Your task to perform on an android device: turn on data saver in the chrome app Image 0: 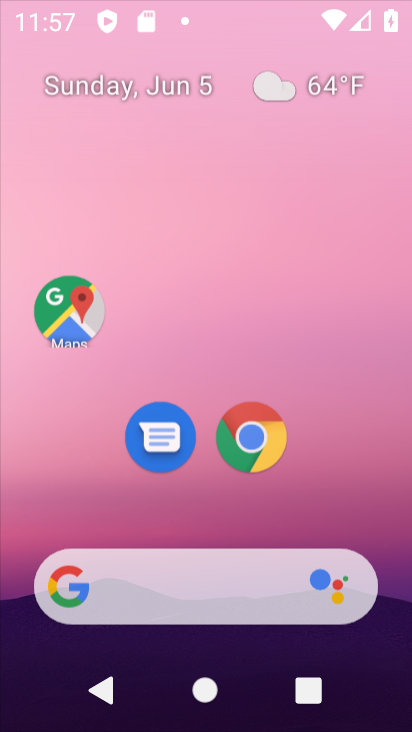
Step 0: drag from (297, 623) to (258, 382)
Your task to perform on an android device: turn on data saver in the chrome app Image 1: 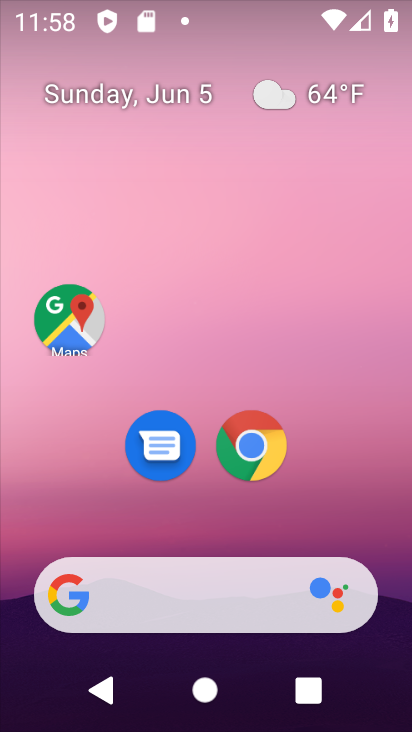
Step 1: drag from (284, 555) to (304, 7)
Your task to perform on an android device: turn on data saver in the chrome app Image 2: 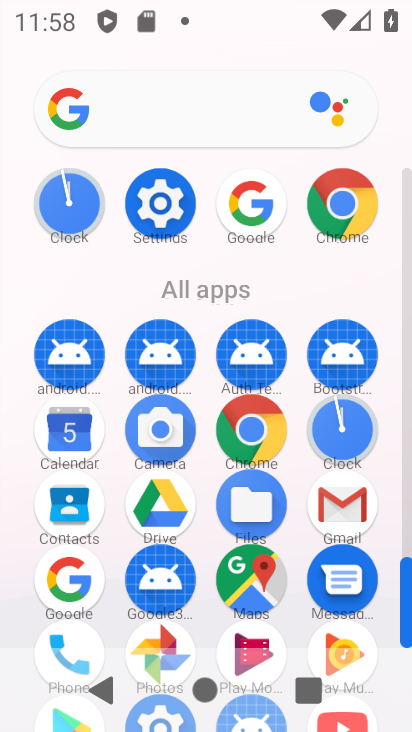
Step 2: click (279, 438)
Your task to perform on an android device: turn on data saver in the chrome app Image 3: 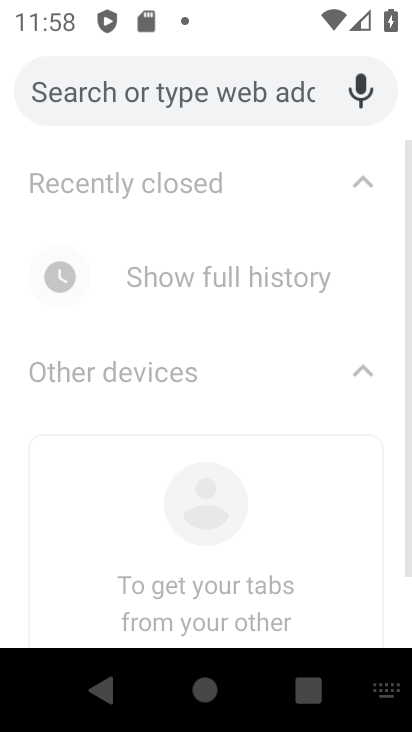
Step 3: press back button
Your task to perform on an android device: turn on data saver in the chrome app Image 4: 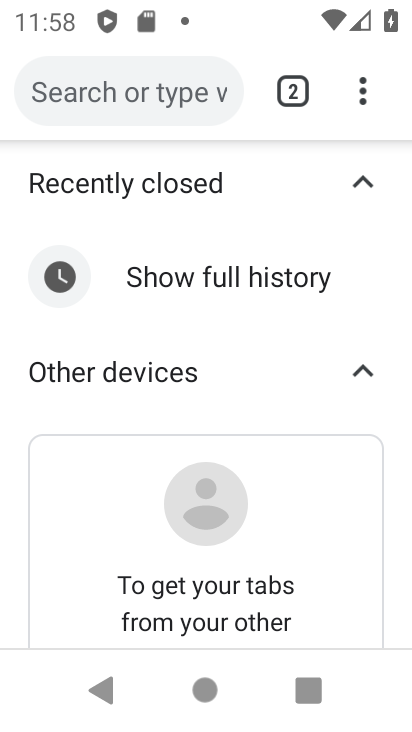
Step 4: click (360, 90)
Your task to perform on an android device: turn on data saver in the chrome app Image 5: 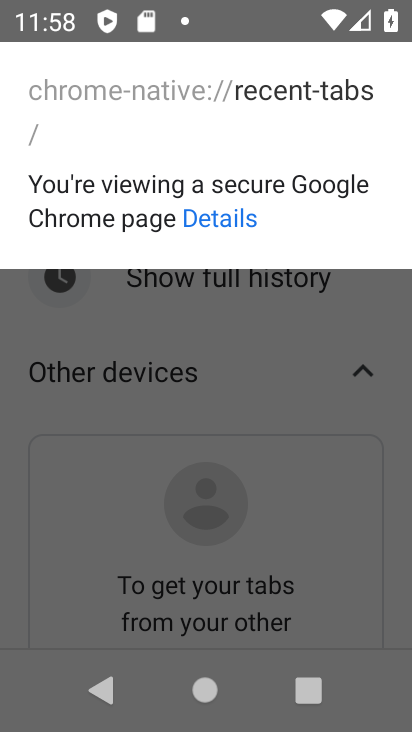
Step 5: click (282, 353)
Your task to perform on an android device: turn on data saver in the chrome app Image 6: 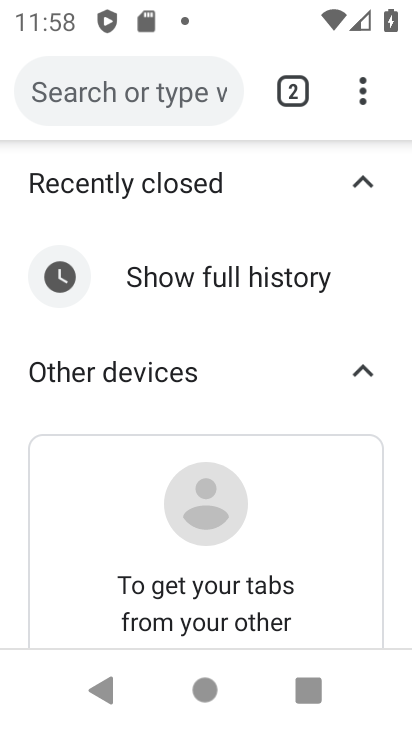
Step 6: drag from (361, 87) to (146, 488)
Your task to perform on an android device: turn on data saver in the chrome app Image 7: 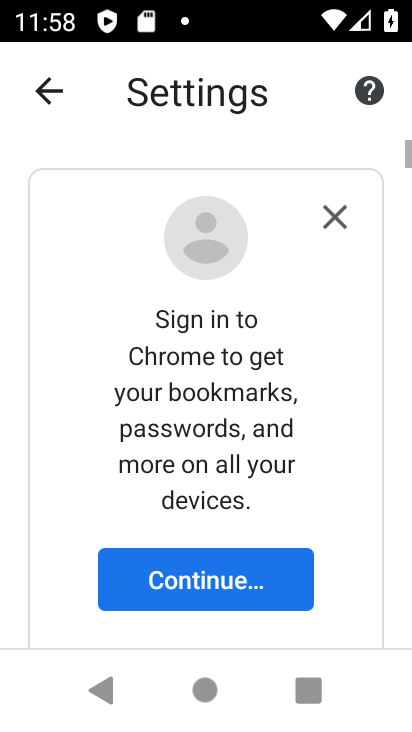
Step 7: drag from (204, 574) to (319, 7)
Your task to perform on an android device: turn on data saver in the chrome app Image 8: 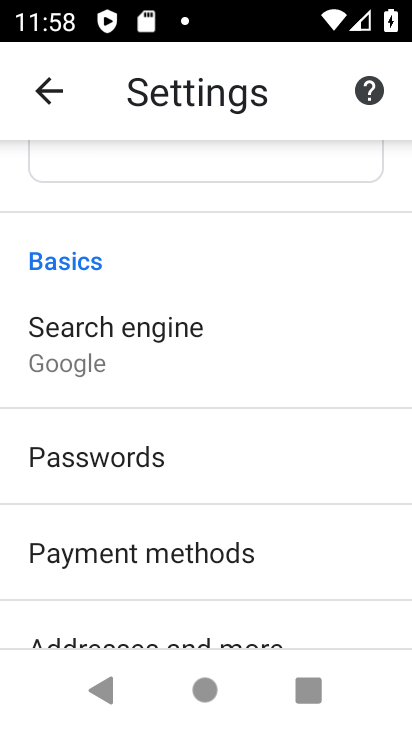
Step 8: drag from (240, 504) to (307, 41)
Your task to perform on an android device: turn on data saver in the chrome app Image 9: 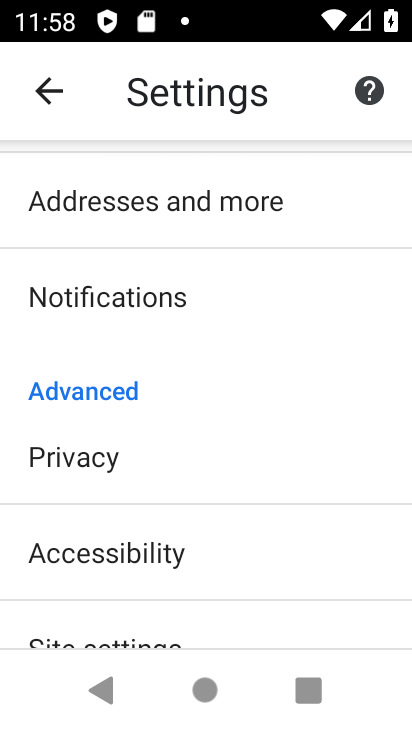
Step 9: drag from (197, 579) to (300, 121)
Your task to perform on an android device: turn on data saver in the chrome app Image 10: 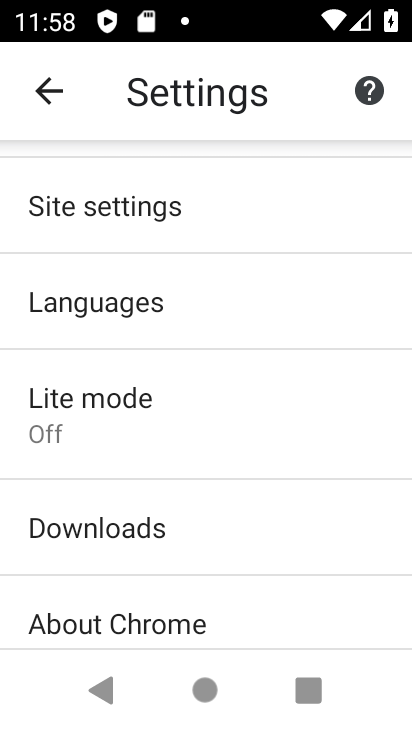
Step 10: click (225, 428)
Your task to perform on an android device: turn on data saver in the chrome app Image 11: 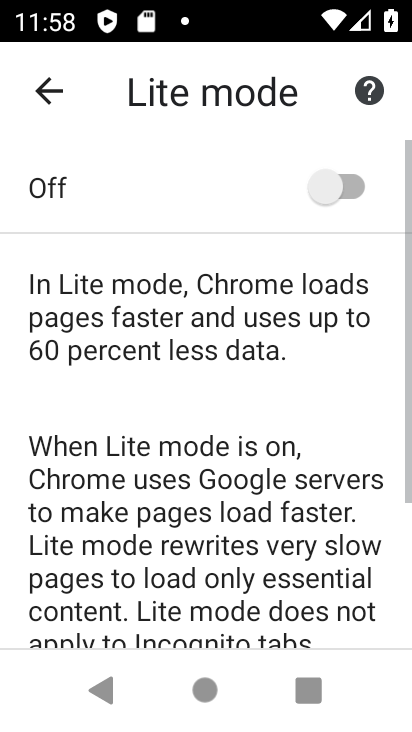
Step 11: click (347, 183)
Your task to perform on an android device: turn on data saver in the chrome app Image 12: 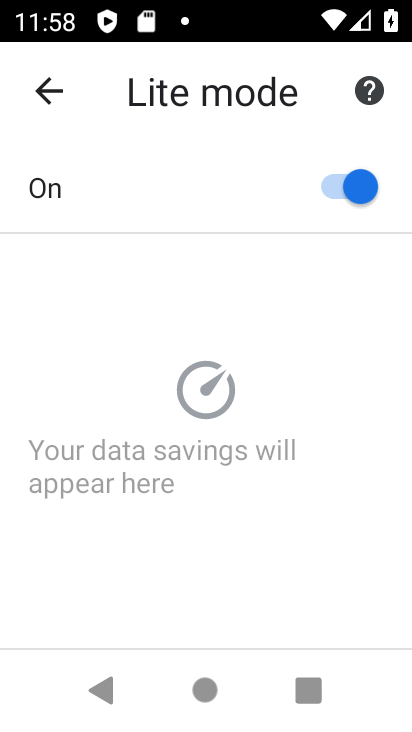
Step 12: task complete